Your task to perform on an android device: change your default location settings in chrome Image 0: 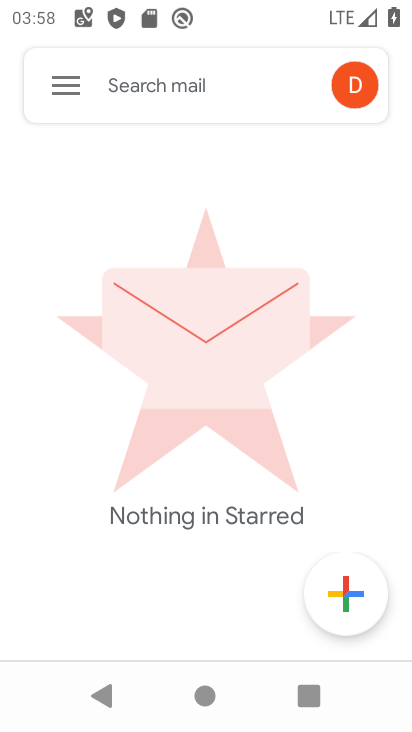
Step 0: press home button
Your task to perform on an android device: change your default location settings in chrome Image 1: 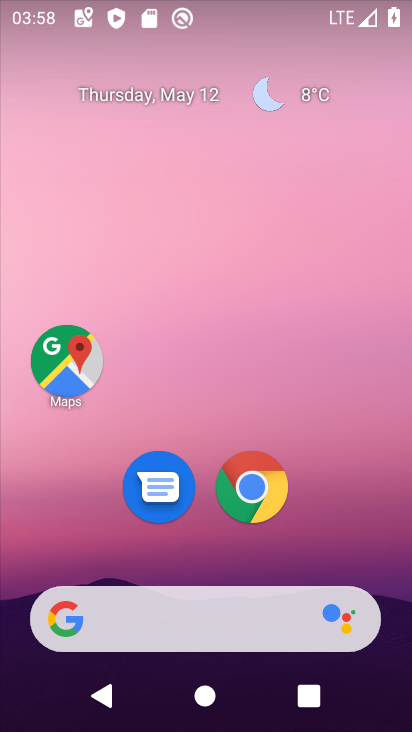
Step 1: drag from (330, 504) to (244, 118)
Your task to perform on an android device: change your default location settings in chrome Image 2: 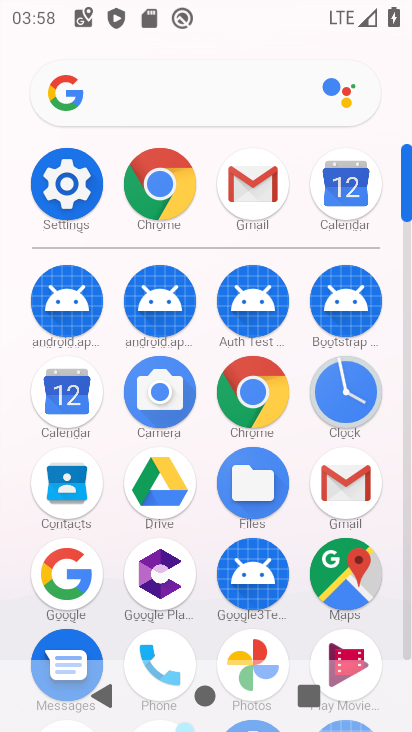
Step 2: click (241, 390)
Your task to perform on an android device: change your default location settings in chrome Image 3: 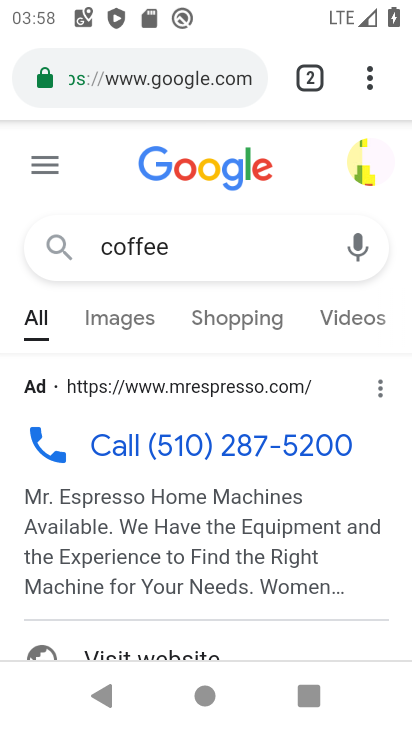
Step 3: click (372, 79)
Your task to perform on an android device: change your default location settings in chrome Image 4: 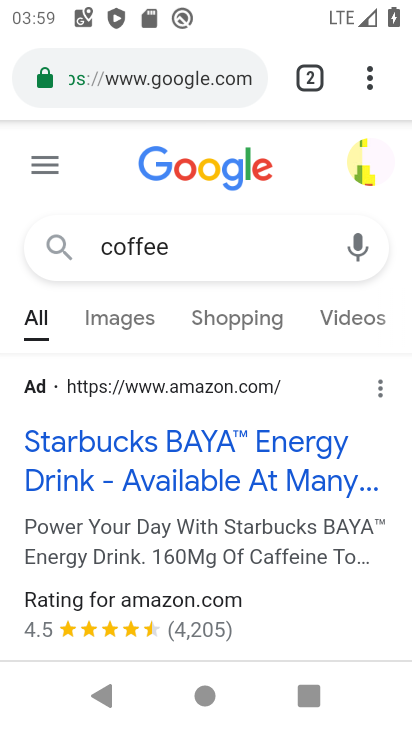
Step 4: drag from (371, 74) to (210, 552)
Your task to perform on an android device: change your default location settings in chrome Image 5: 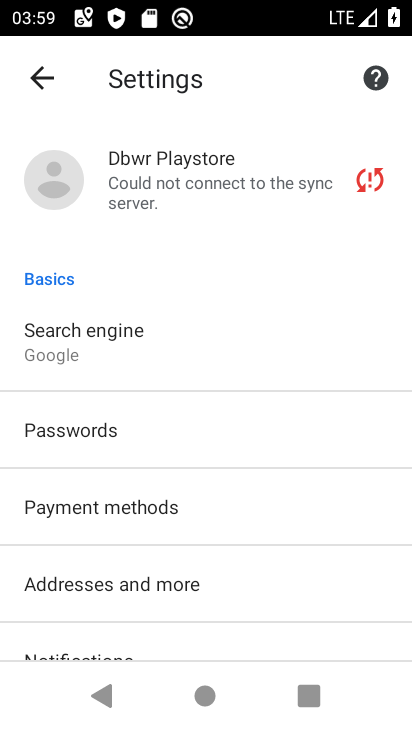
Step 5: drag from (239, 506) to (298, 78)
Your task to perform on an android device: change your default location settings in chrome Image 6: 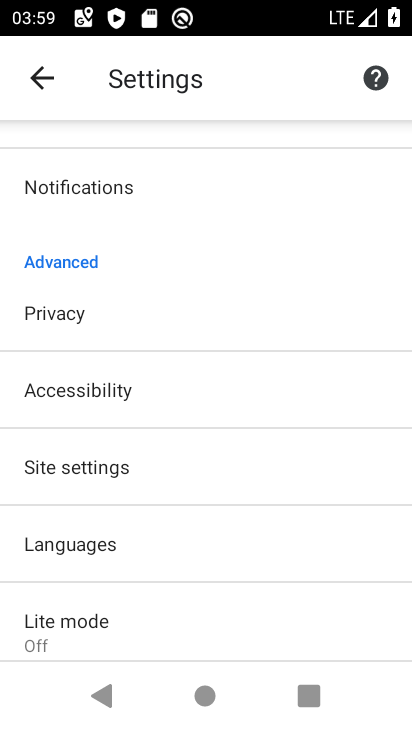
Step 6: click (111, 462)
Your task to perform on an android device: change your default location settings in chrome Image 7: 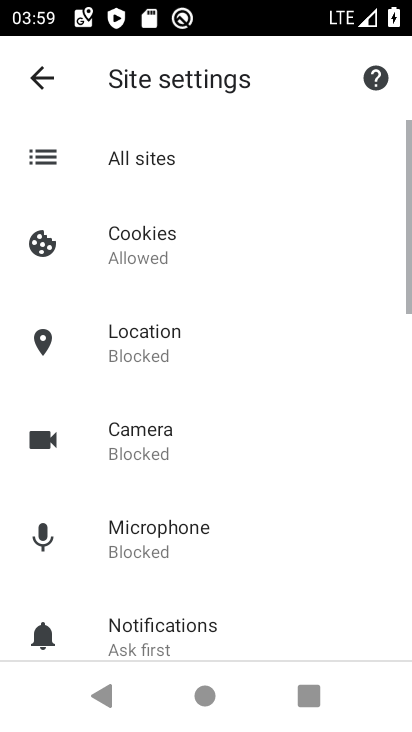
Step 7: click (158, 375)
Your task to perform on an android device: change your default location settings in chrome Image 8: 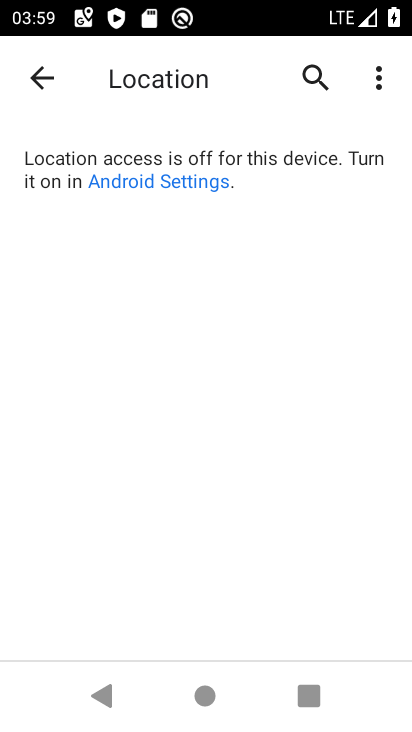
Step 8: click (186, 177)
Your task to perform on an android device: change your default location settings in chrome Image 9: 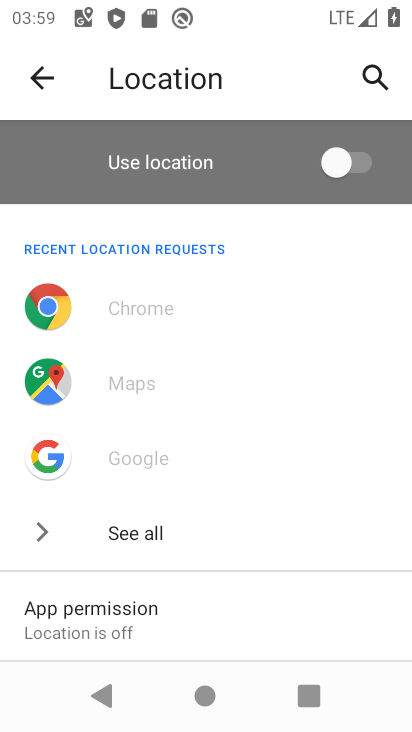
Step 9: task complete